Your task to perform on an android device: Search for pizza restaurants on Maps Image 0: 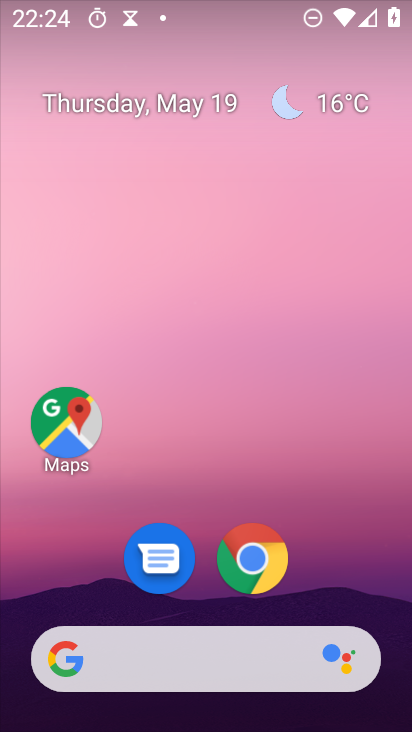
Step 0: drag from (205, 715) to (207, 159)
Your task to perform on an android device: Search for pizza restaurants on Maps Image 1: 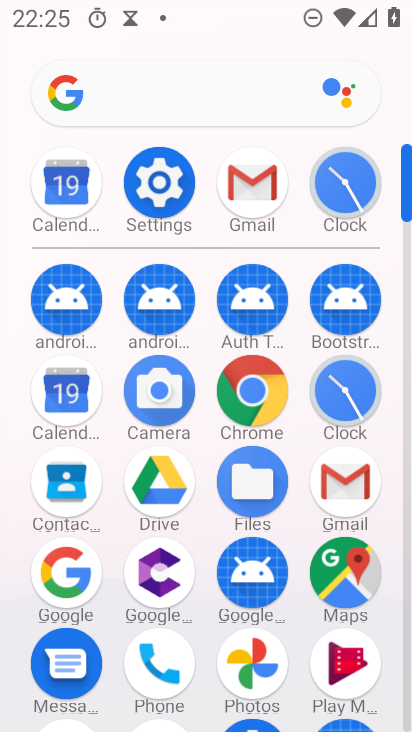
Step 1: click (344, 577)
Your task to perform on an android device: Search for pizza restaurants on Maps Image 2: 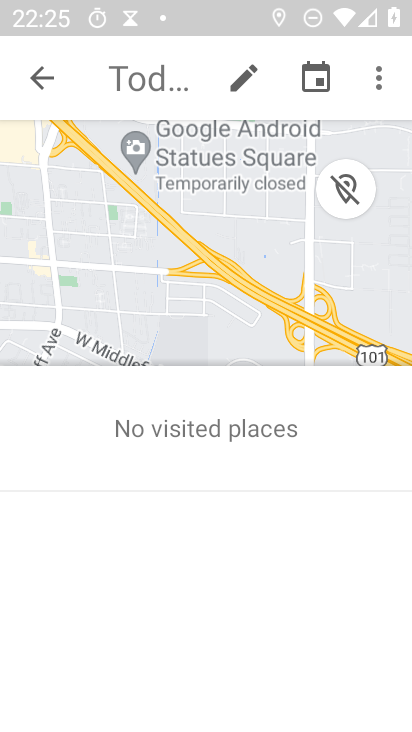
Step 2: click (34, 75)
Your task to perform on an android device: Search for pizza restaurants on Maps Image 3: 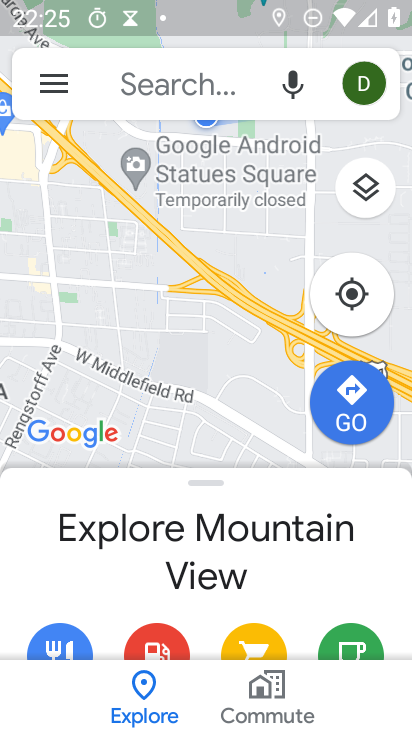
Step 3: click (158, 81)
Your task to perform on an android device: Search for pizza restaurants on Maps Image 4: 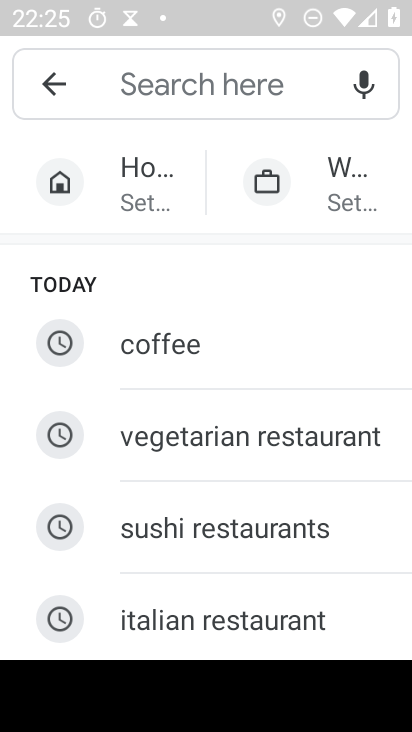
Step 4: type "pizza restaurants"
Your task to perform on an android device: Search for pizza restaurants on Maps Image 5: 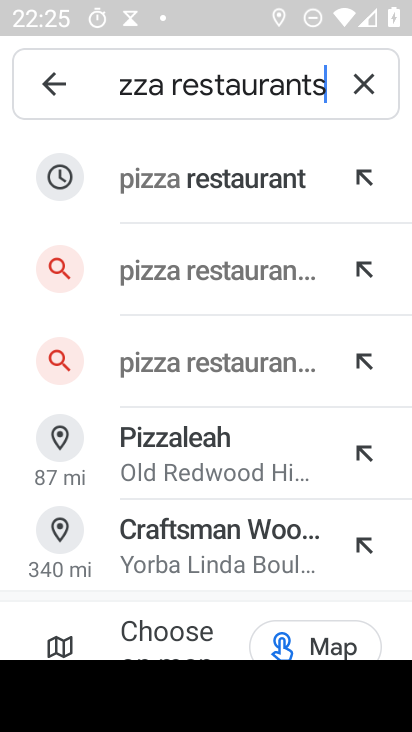
Step 5: click (222, 179)
Your task to perform on an android device: Search for pizza restaurants on Maps Image 6: 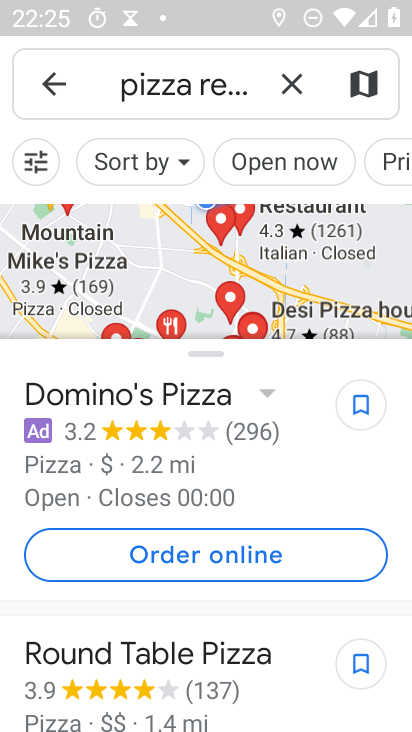
Step 6: task complete